Your task to perform on an android device: install app "Pinterest" Image 0: 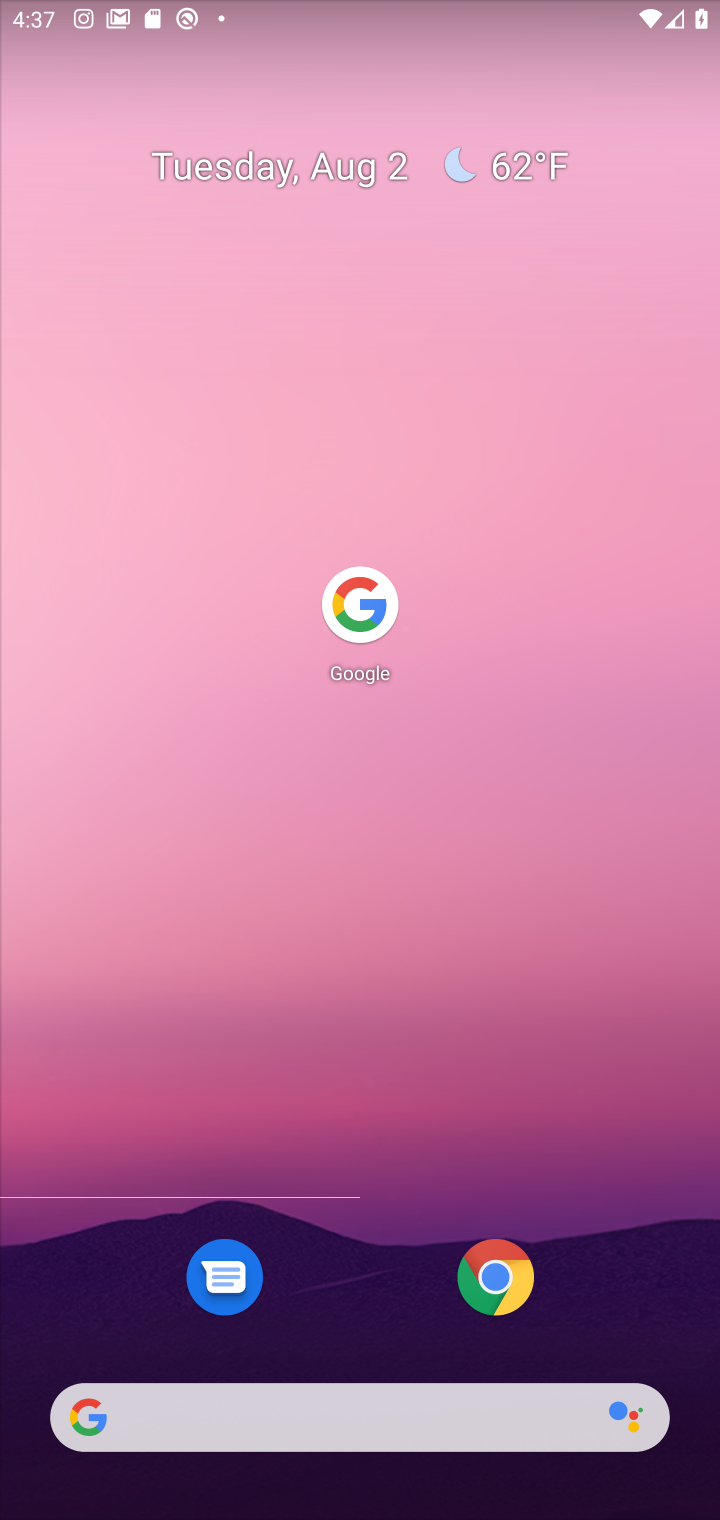
Step 0: drag from (560, 987) to (448, 10)
Your task to perform on an android device: install app "Pinterest" Image 1: 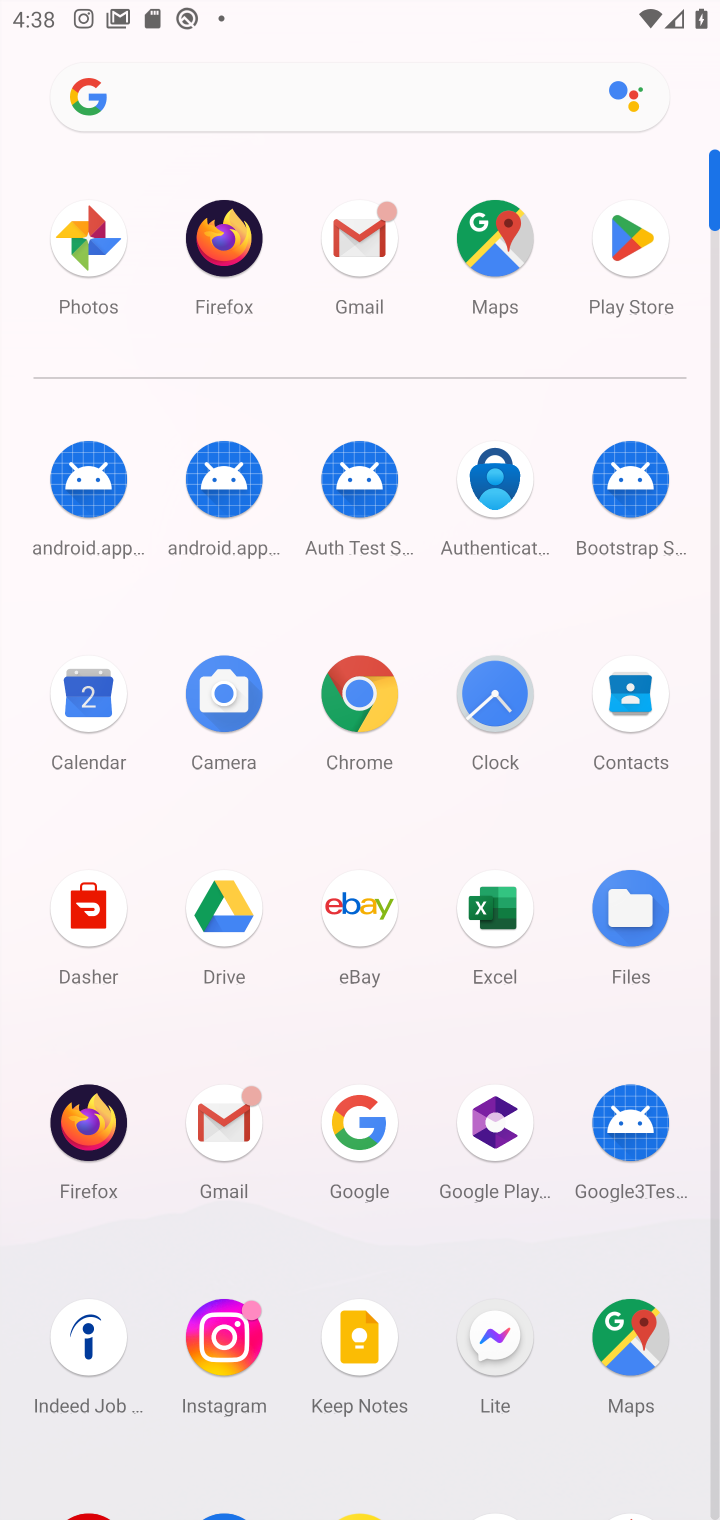
Step 1: drag from (426, 1272) to (416, 355)
Your task to perform on an android device: install app "Pinterest" Image 2: 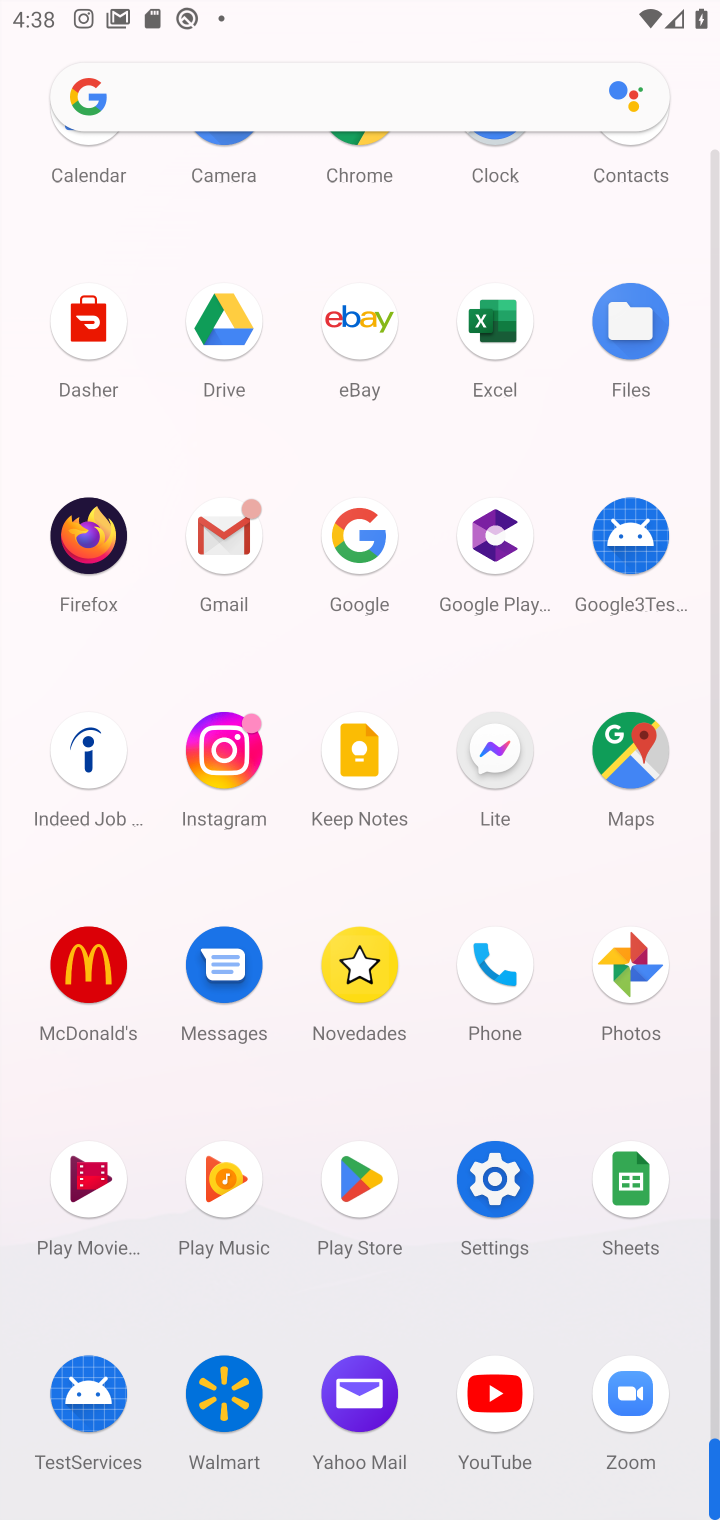
Step 2: click (393, 1178)
Your task to perform on an android device: install app "Pinterest" Image 3: 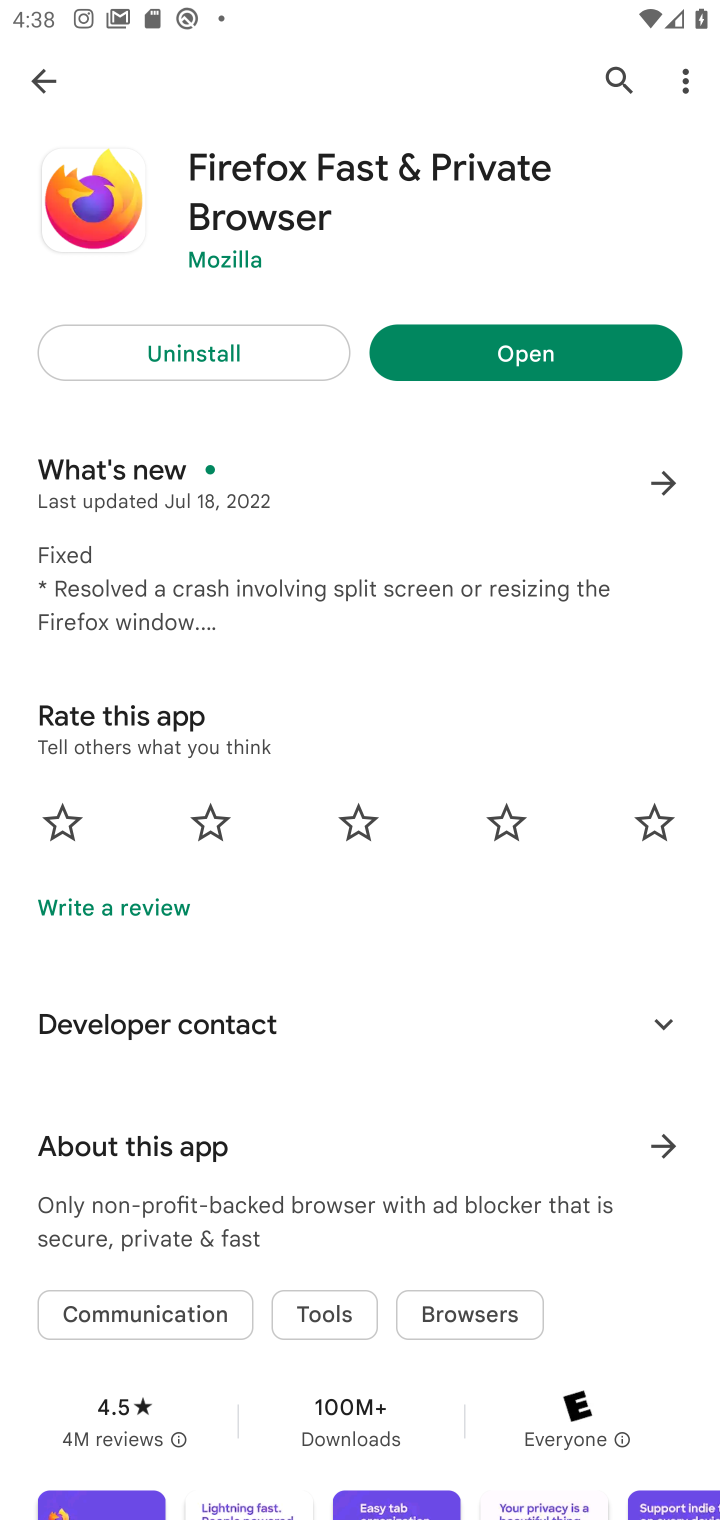
Step 3: click (609, 69)
Your task to perform on an android device: install app "Pinterest" Image 4: 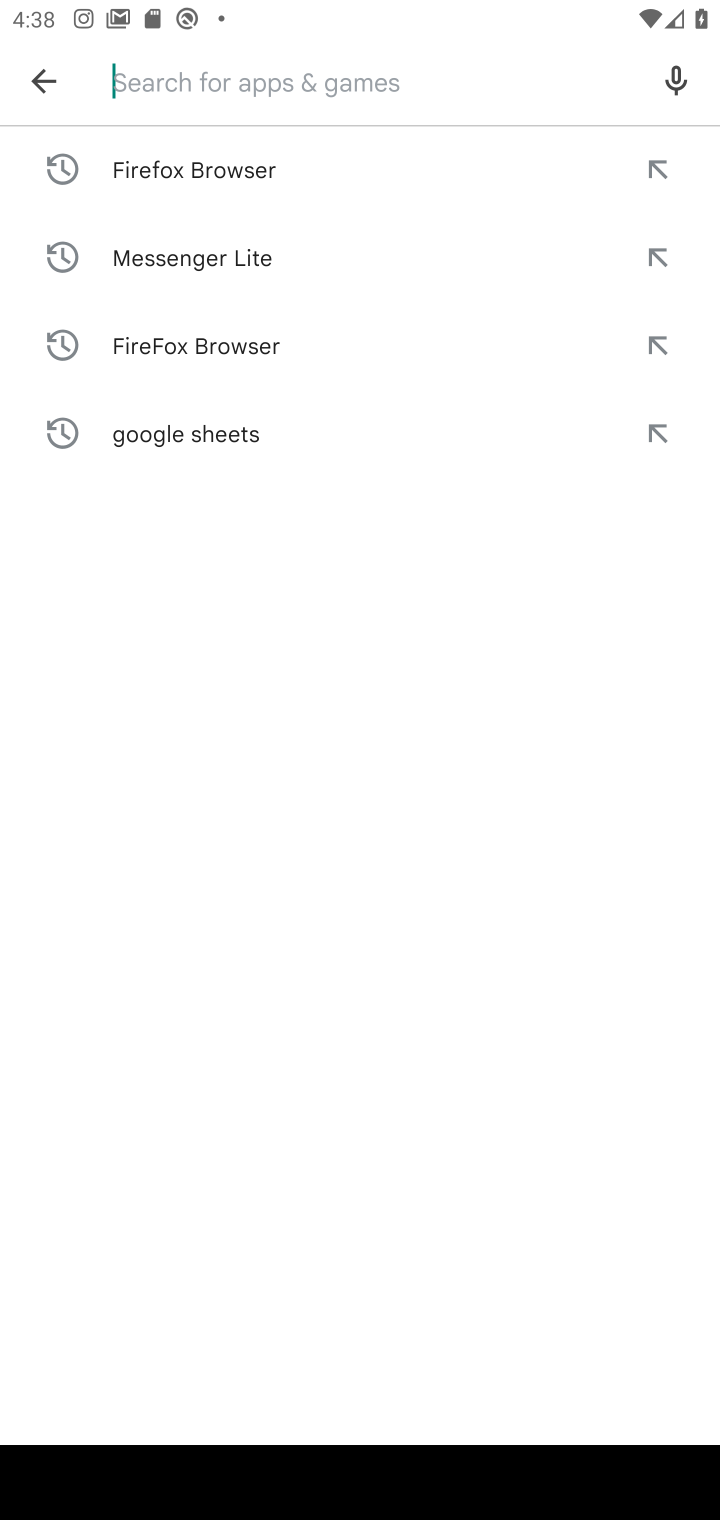
Step 4: type "Pinterest"
Your task to perform on an android device: install app "Pinterest" Image 5: 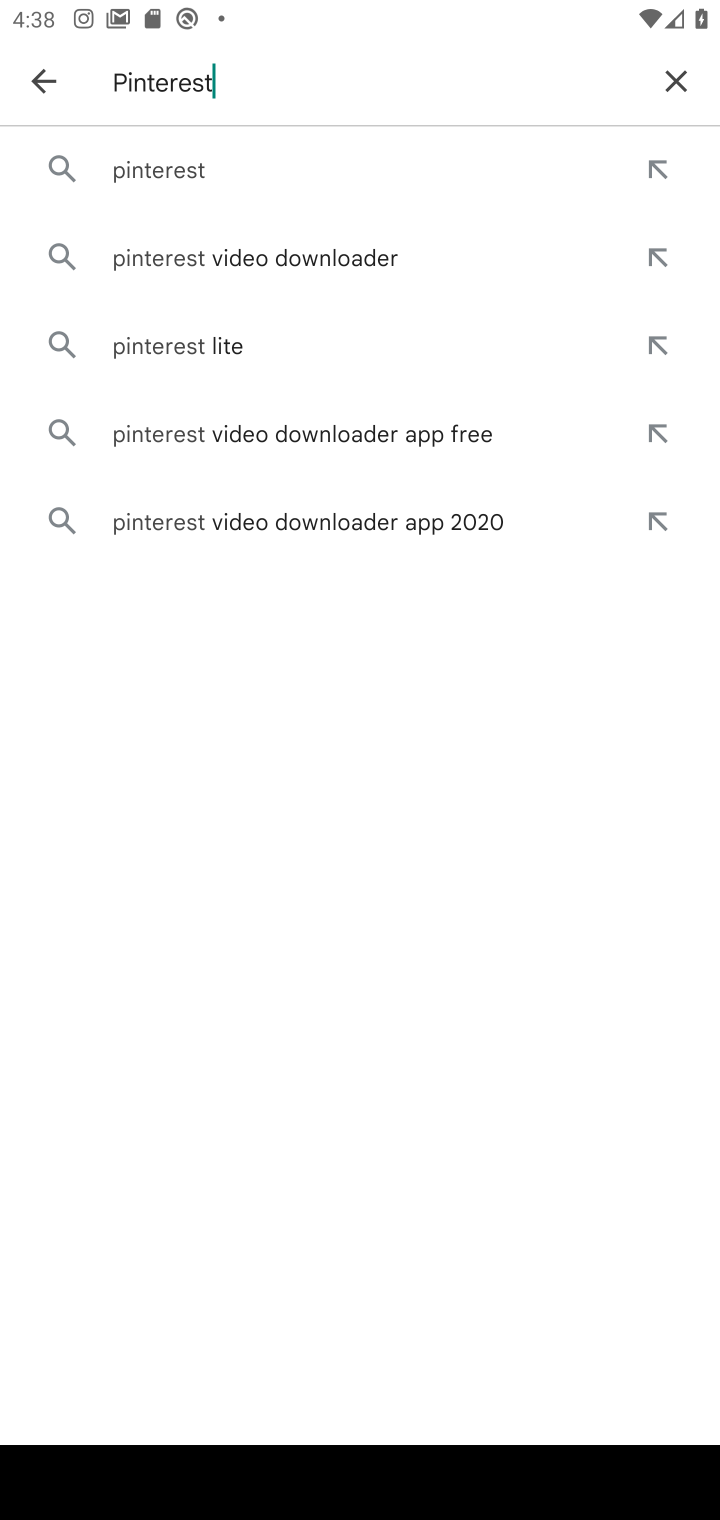
Step 5: press enter
Your task to perform on an android device: install app "Pinterest" Image 6: 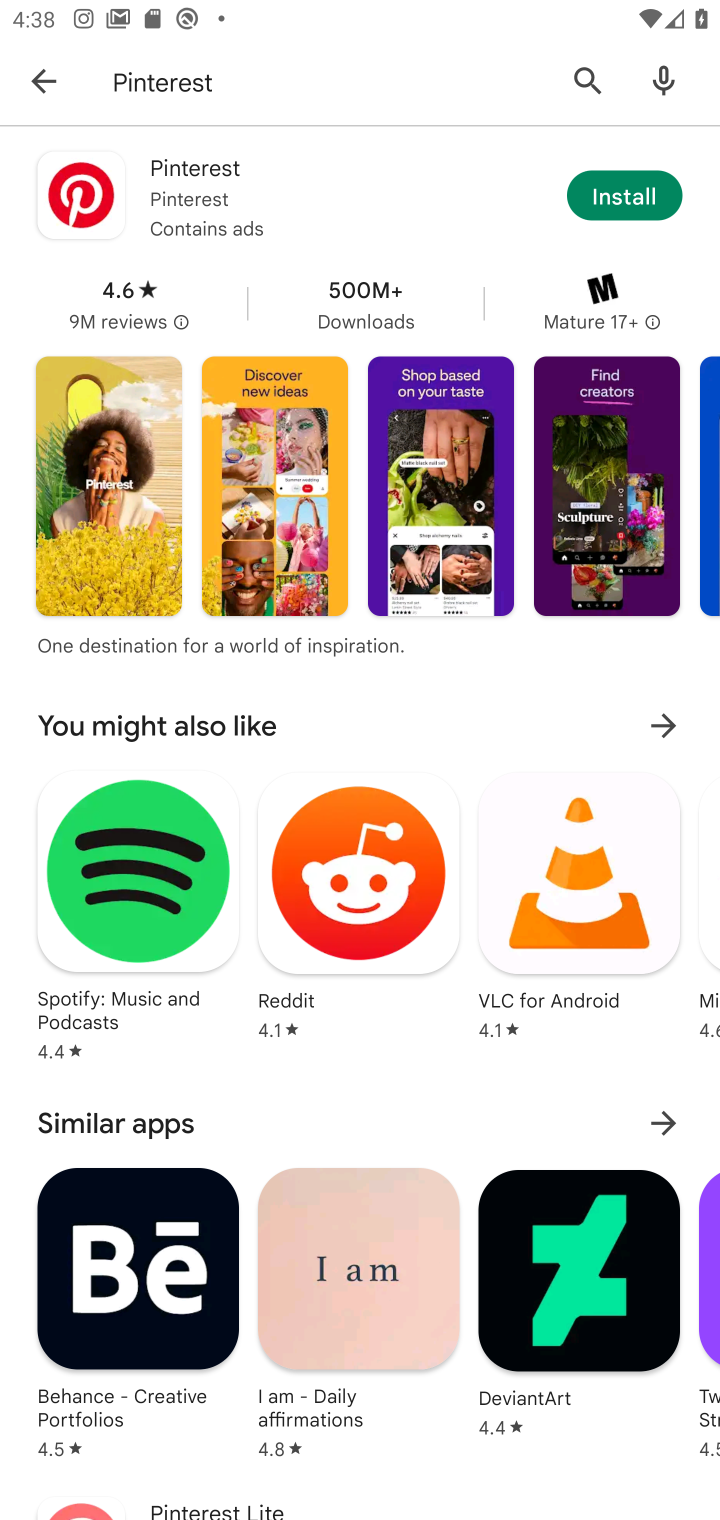
Step 6: click (604, 179)
Your task to perform on an android device: install app "Pinterest" Image 7: 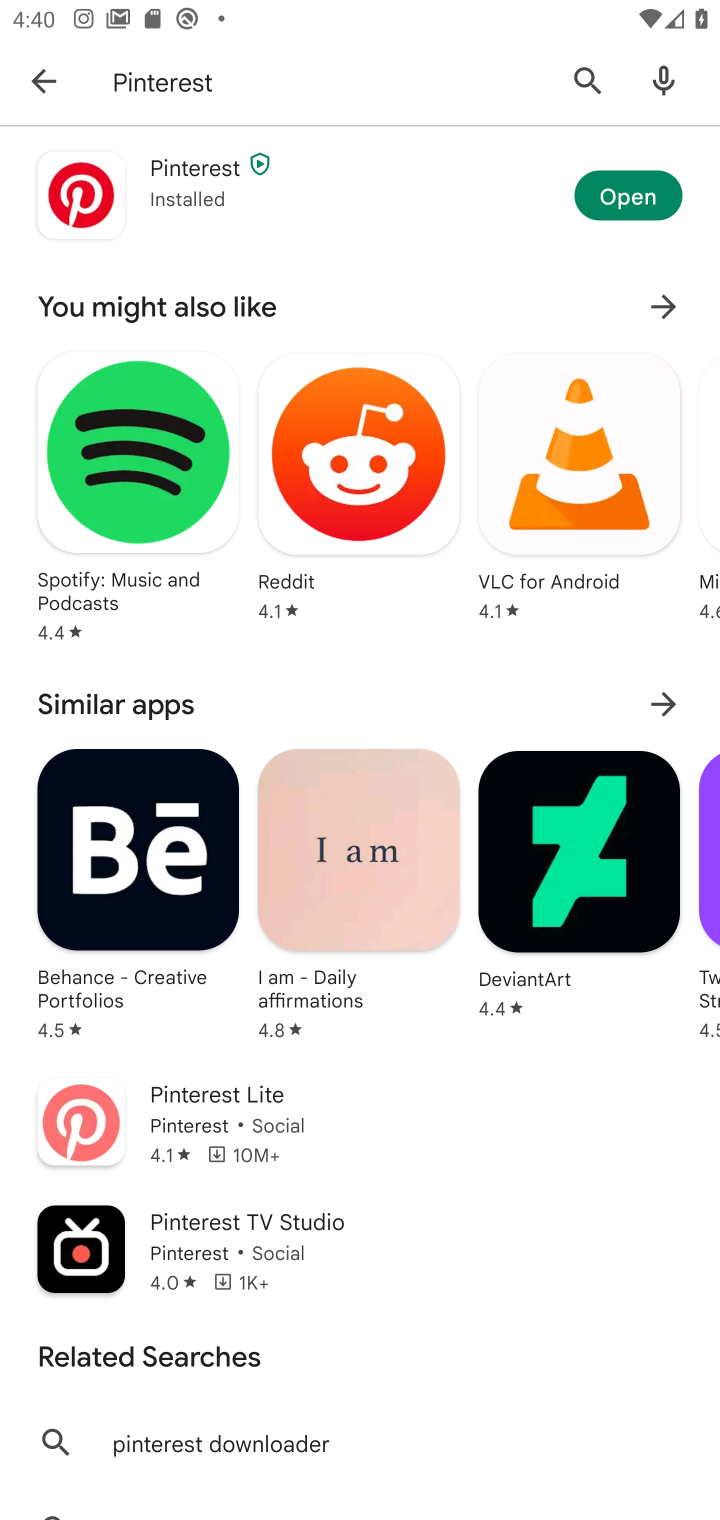
Step 7: task complete